Your task to perform on an android device: open the mobile data screen to see how much data has been used Image 0: 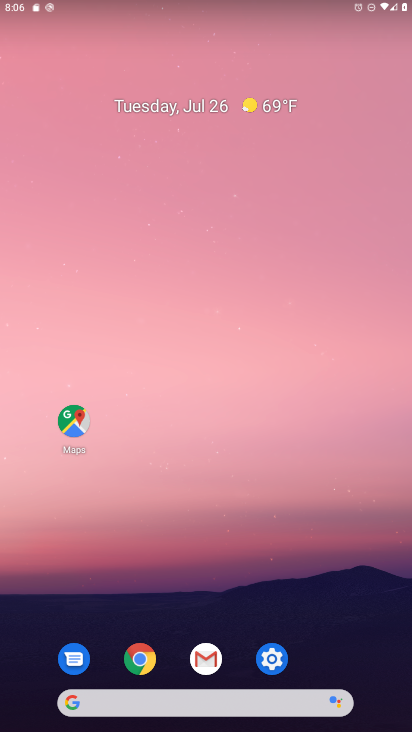
Step 0: drag from (263, 716) to (299, 140)
Your task to perform on an android device: open the mobile data screen to see how much data has been used Image 1: 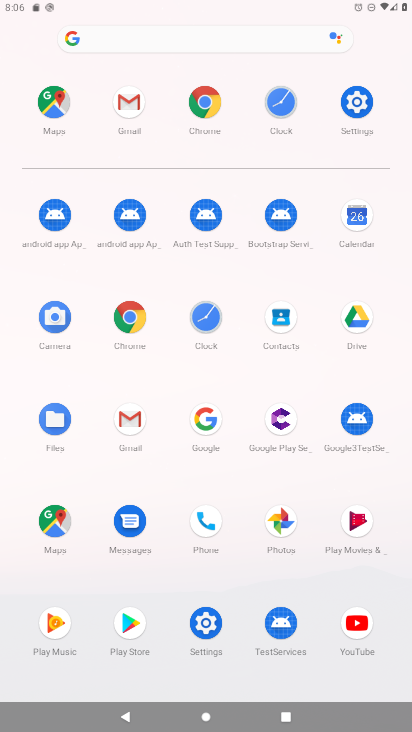
Step 1: click (354, 100)
Your task to perform on an android device: open the mobile data screen to see how much data has been used Image 2: 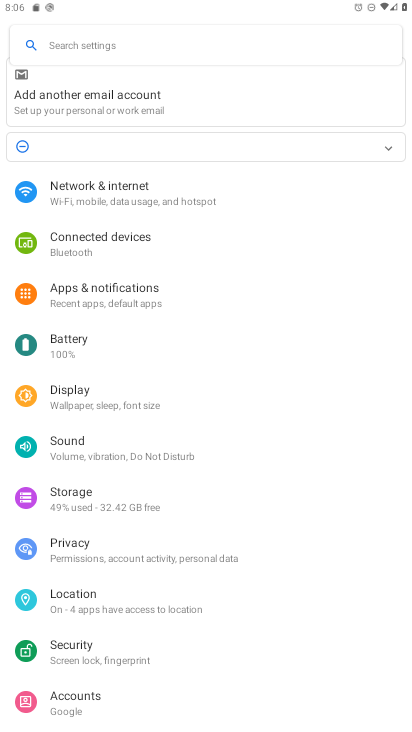
Step 2: click (80, 41)
Your task to perform on an android device: open the mobile data screen to see how much data has been used Image 3: 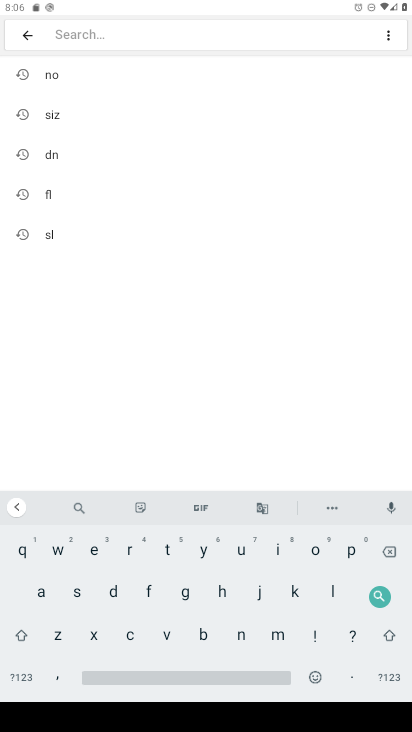
Step 3: click (111, 594)
Your task to perform on an android device: open the mobile data screen to see how much data has been used Image 4: 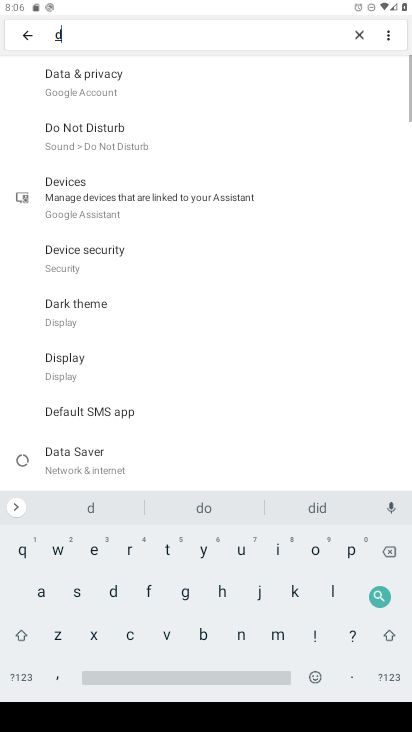
Step 4: click (33, 592)
Your task to perform on an android device: open the mobile data screen to see how much data has been used Image 5: 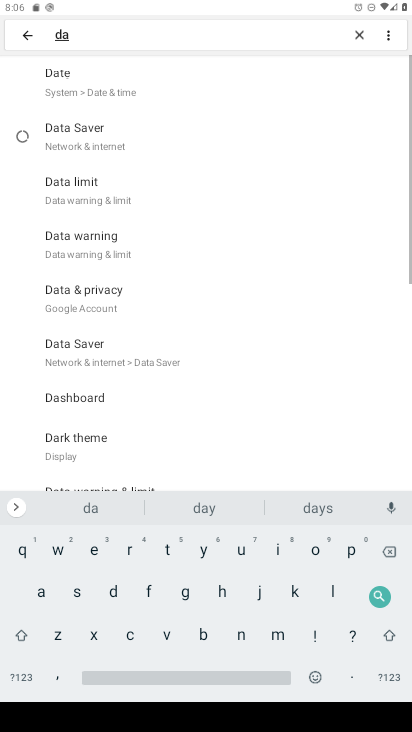
Step 5: click (169, 550)
Your task to perform on an android device: open the mobile data screen to see how much data has been used Image 6: 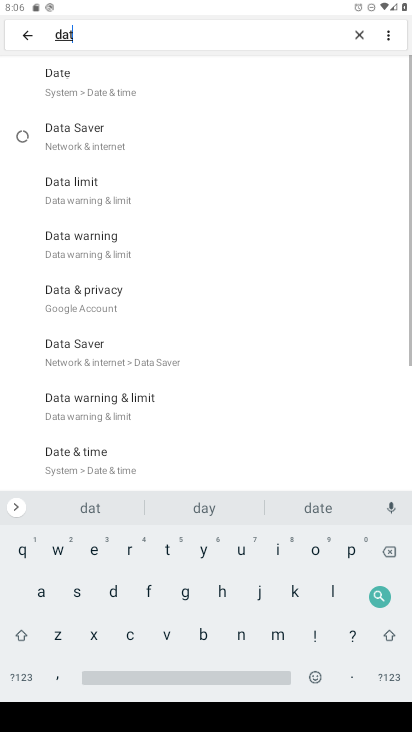
Step 6: click (40, 586)
Your task to perform on an android device: open the mobile data screen to see how much data has been used Image 7: 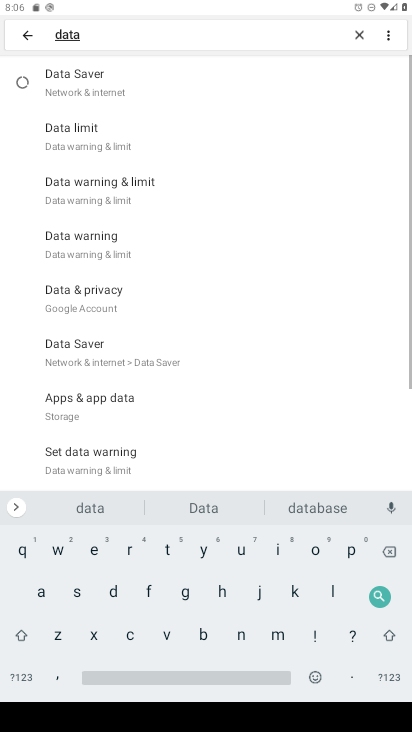
Step 7: click (161, 669)
Your task to perform on an android device: open the mobile data screen to see how much data has been used Image 8: 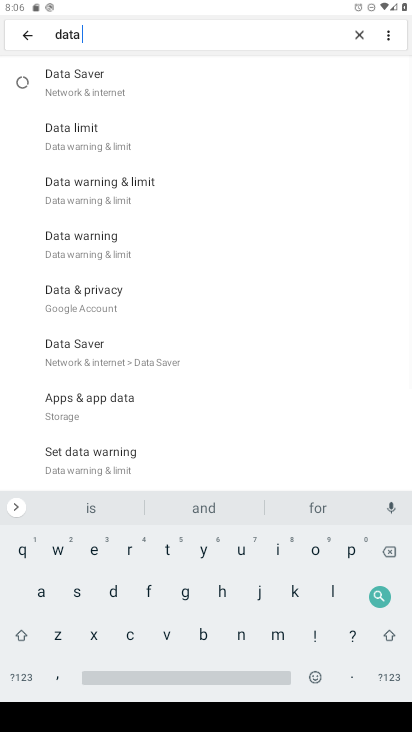
Step 8: click (239, 550)
Your task to perform on an android device: open the mobile data screen to see how much data has been used Image 9: 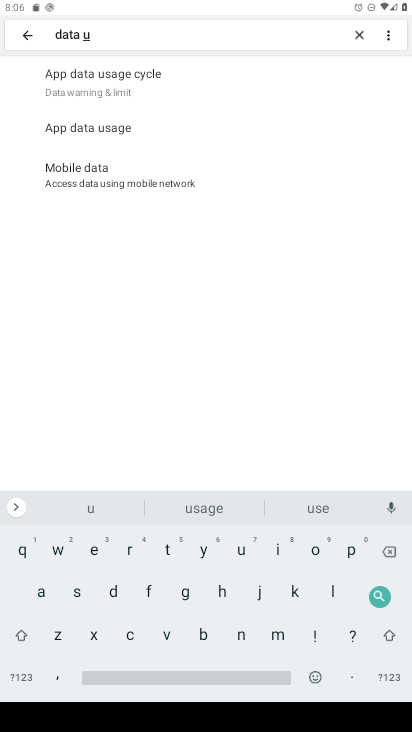
Step 9: click (94, 131)
Your task to perform on an android device: open the mobile data screen to see how much data has been used Image 10: 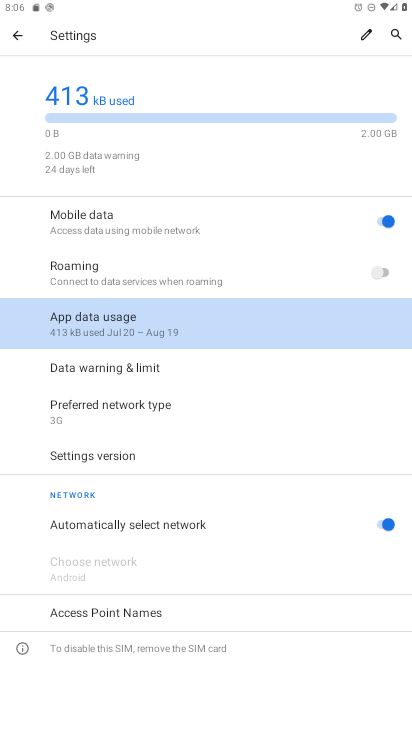
Step 10: click (131, 313)
Your task to perform on an android device: open the mobile data screen to see how much data has been used Image 11: 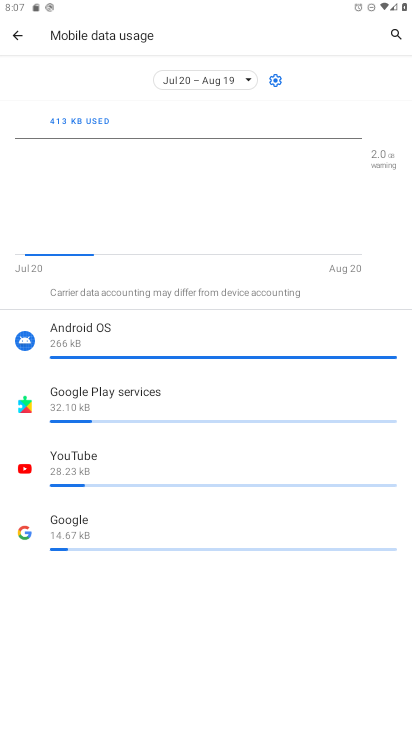
Step 11: task complete